Your task to perform on an android device: toggle javascript in the chrome app Image 0: 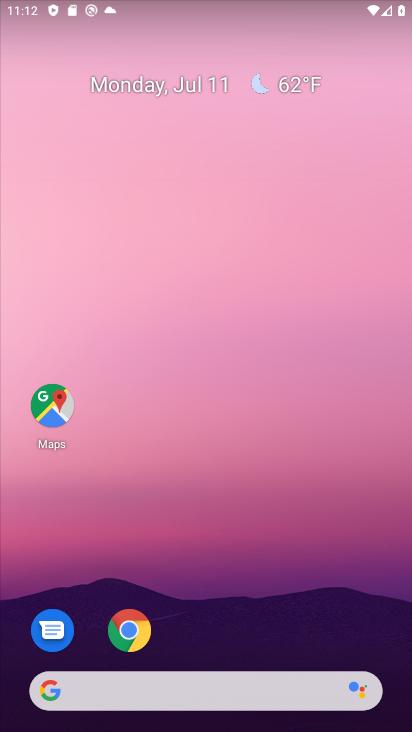
Step 0: drag from (192, 702) to (256, 48)
Your task to perform on an android device: toggle javascript in the chrome app Image 1: 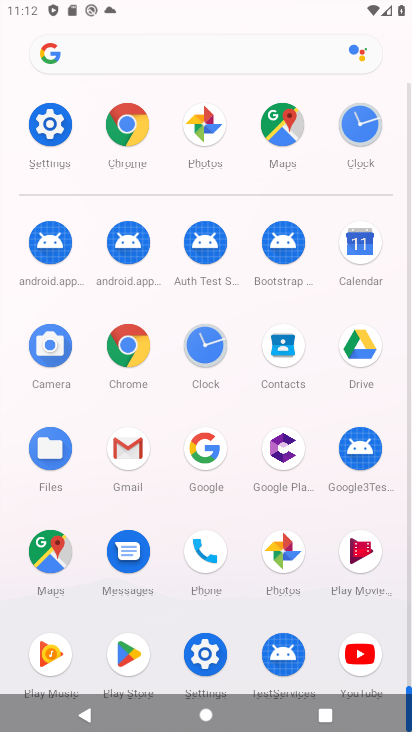
Step 1: click (115, 340)
Your task to perform on an android device: toggle javascript in the chrome app Image 2: 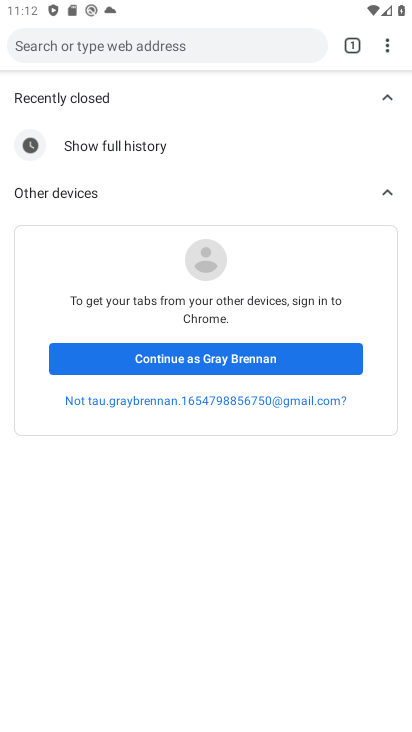
Step 2: drag from (378, 78) to (337, 229)
Your task to perform on an android device: toggle javascript in the chrome app Image 3: 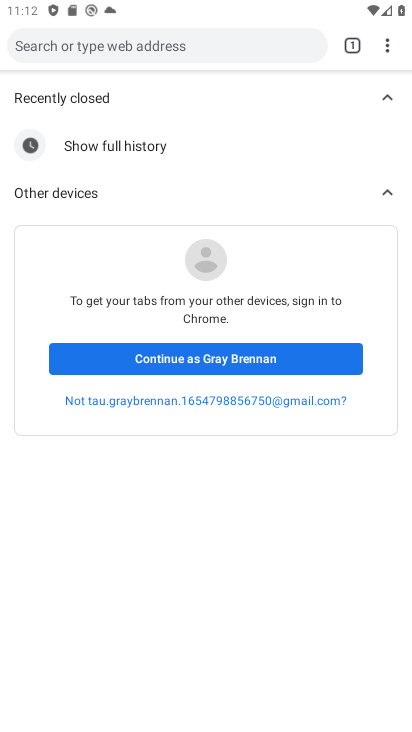
Step 3: drag from (385, 44) to (248, 386)
Your task to perform on an android device: toggle javascript in the chrome app Image 4: 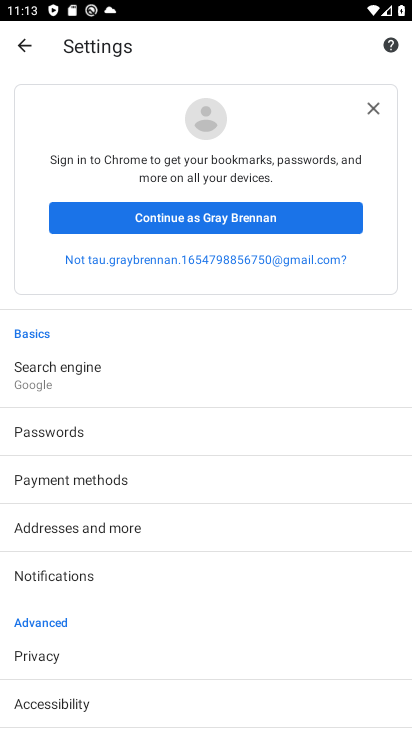
Step 4: drag from (149, 677) to (241, 254)
Your task to perform on an android device: toggle javascript in the chrome app Image 5: 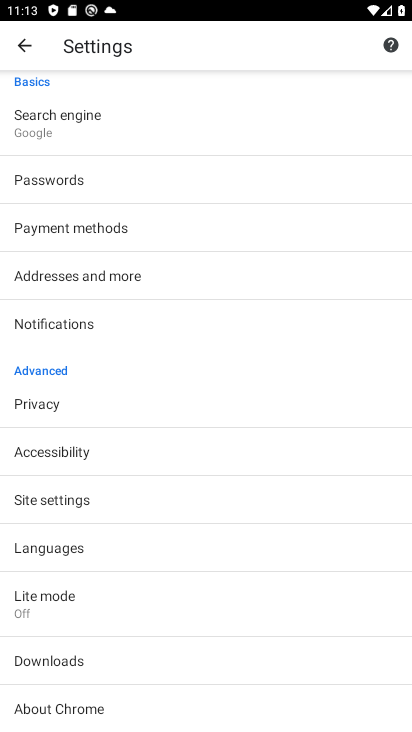
Step 5: click (74, 505)
Your task to perform on an android device: toggle javascript in the chrome app Image 6: 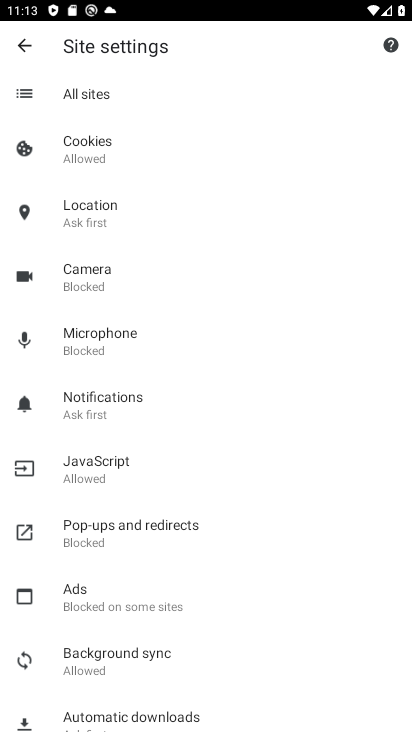
Step 6: click (125, 480)
Your task to perform on an android device: toggle javascript in the chrome app Image 7: 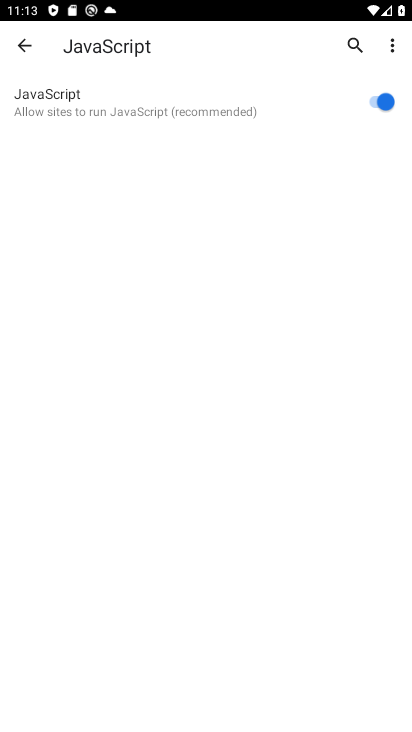
Step 7: click (374, 96)
Your task to perform on an android device: toggle javascript in the chrome app Image 8: 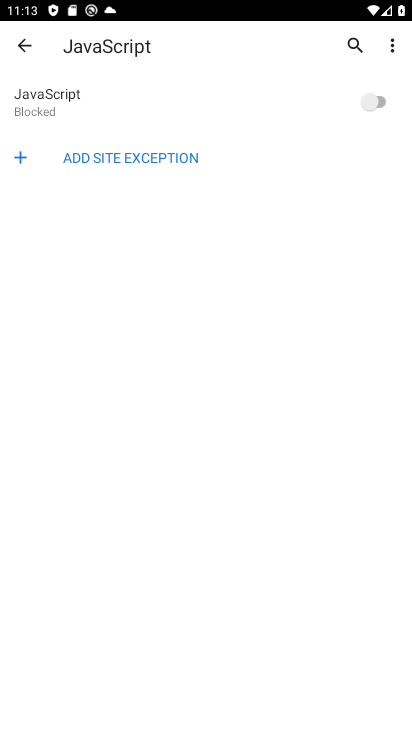
Step 8: task complete